Your task to perform on an android device: open a new tab in the chrome app Image 0: 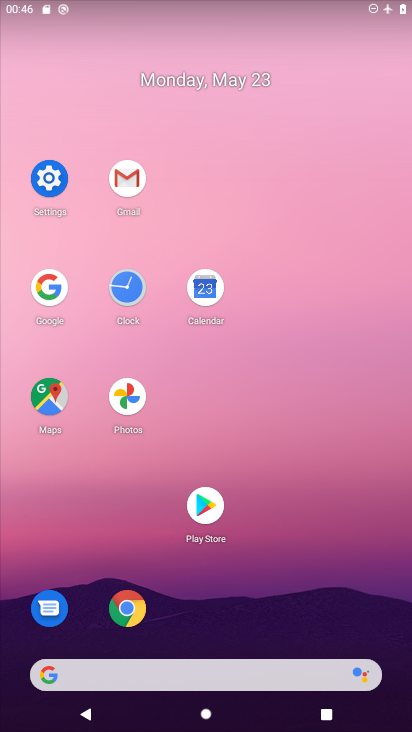
Step 0: click (142, 614)
Your task to perform on an android device: open a new tab in the chrome app Image 1: 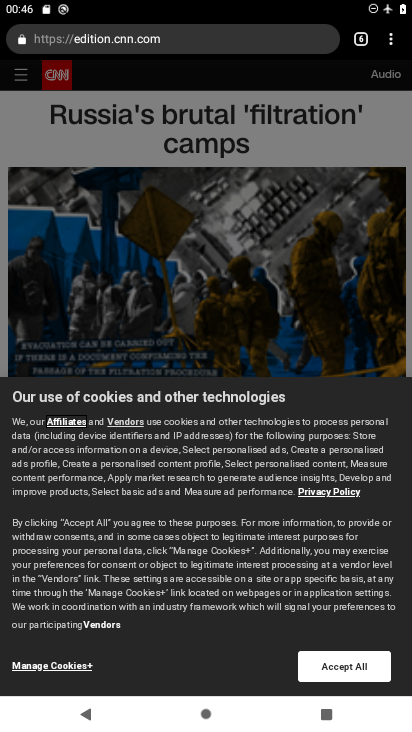
Step 1: click (367, 38)
Your task to perform on an android device: open a new tab in the chrome app Image 2: 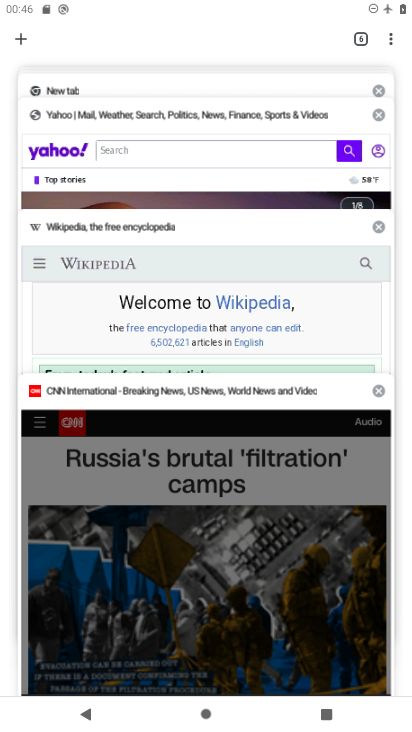
Step 2: click (26, 30)
Your task to perform on an android device: open a new tab in the chrome app Image 3: 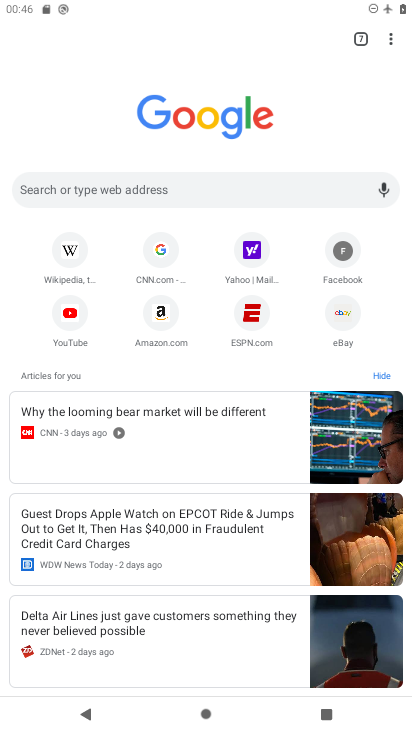
Step 3: task complete